Your task to perform on an android device: open a bookmark in the chrome app Image 0: 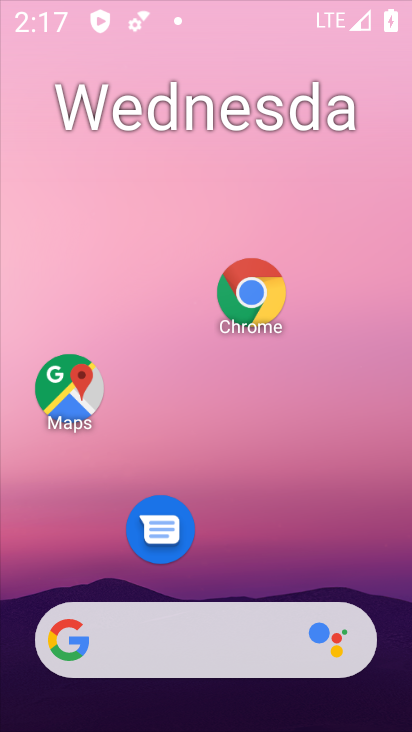
Step 0: click (134, 532)
Your task to perform on an android device: open a bookmark in the chrome app Image 1: 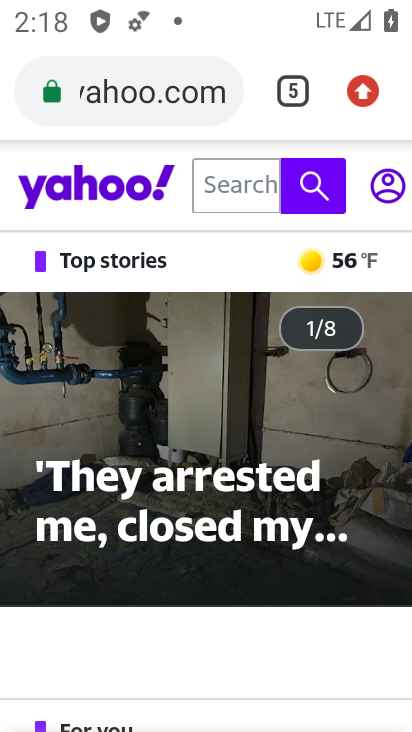
Step 1: click (370, 98)
Your task to perform on an android device: open a bookmark in the chrome app Image 2: 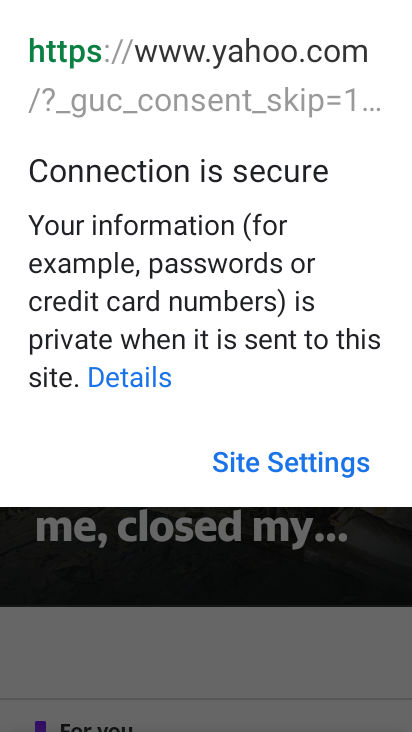
Step 2: click (229, 545)
Your task to perform on an android device: open a bookmark in the chrome app Image 3: 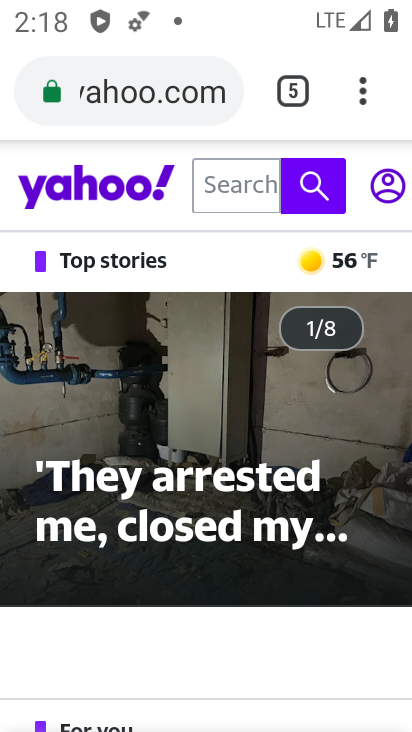
Step 3: click (347, 93)
Your task to perform on an android device: open a bookmark in the chrome app Image 4: 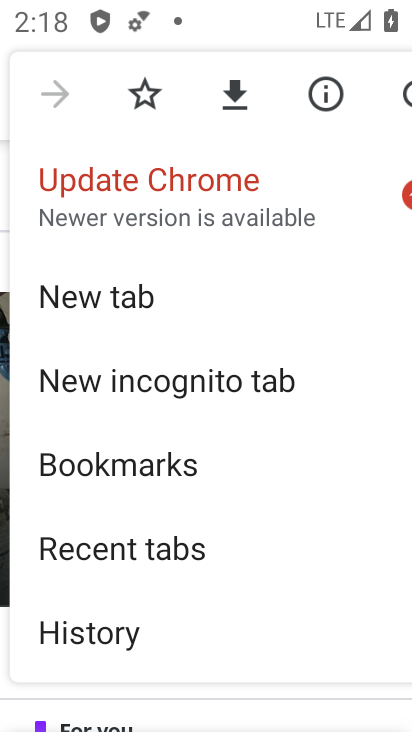
Step 4: click (165, 467)
Your task to perform on an android device: open a bookmark in the chrome app Image 5: 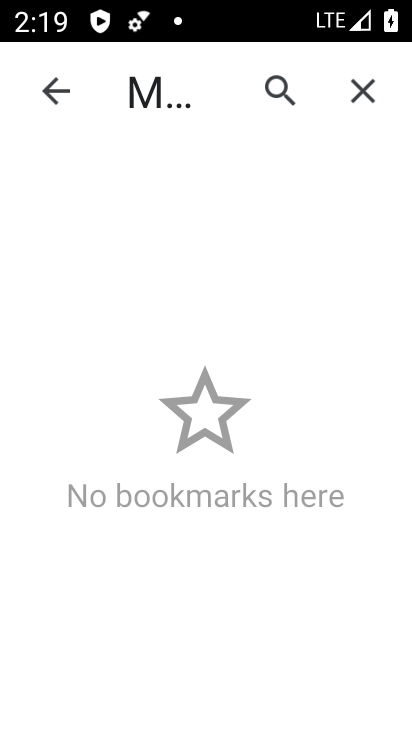
Step 5: task complete